Your task to perform on an android device: Go to Google Image 0: 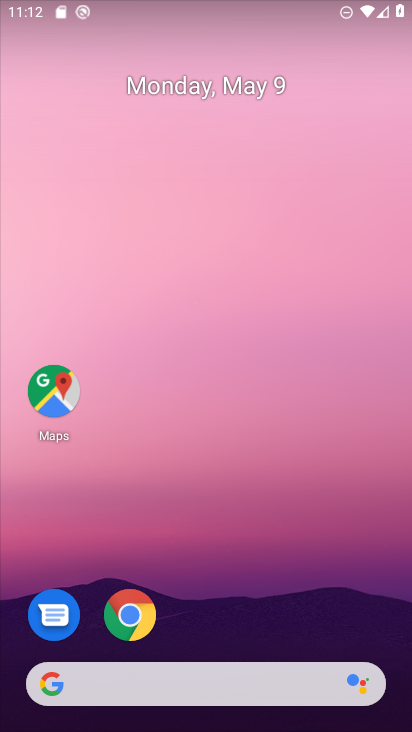
Step 0: drag from (256, 720) to (232, 282)
Your task to perform on an android device: Go to Google Image 1: 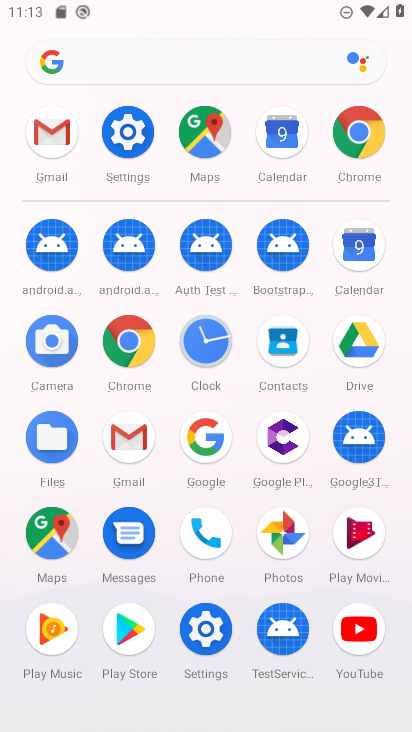
Step 1: click (138, 58)
Your task to perform on an android device: Go to Google Image 2: 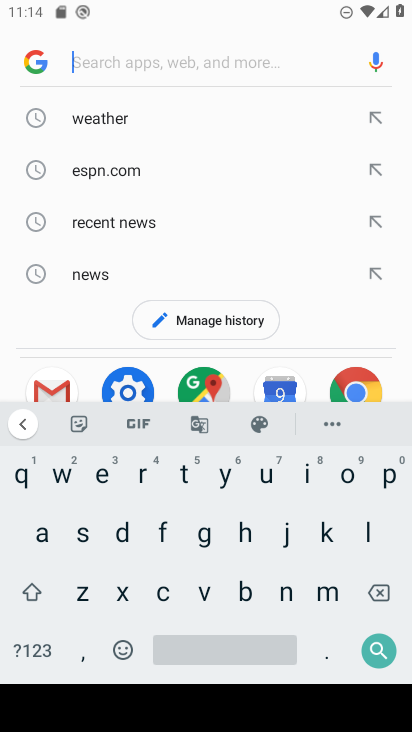
Step 2: click (42, 59)
Your task to perform on an android device: Go to Google Image 3: 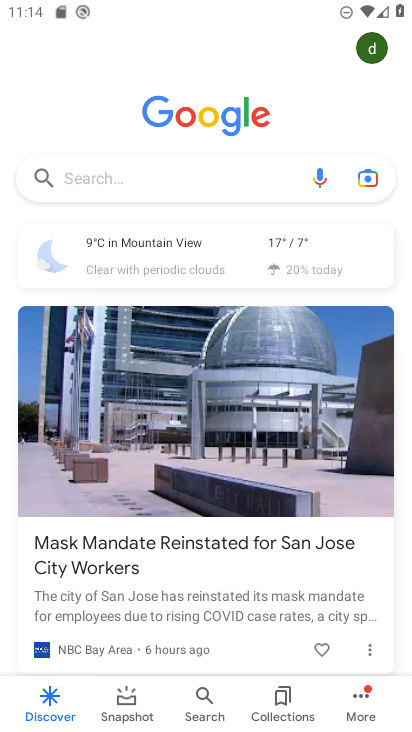
Step 3: task complete